Your task to perform on an android device: read, delete, or share a saved page in the chrome app Image 0: 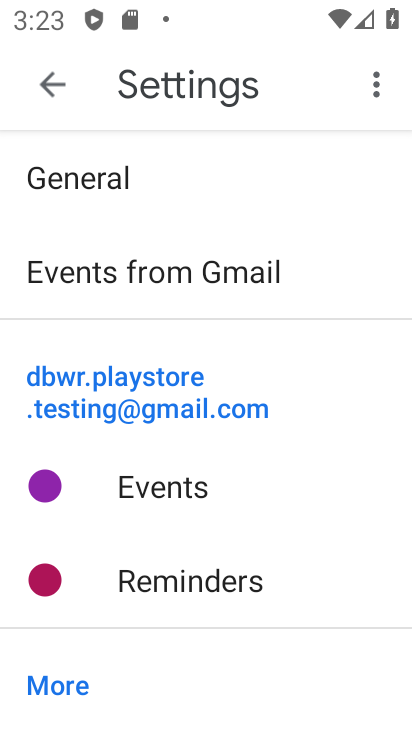
Step 0: press home button
Your task to perform on an android device: read, delete, or share a saved page in the chrome app Image 1: 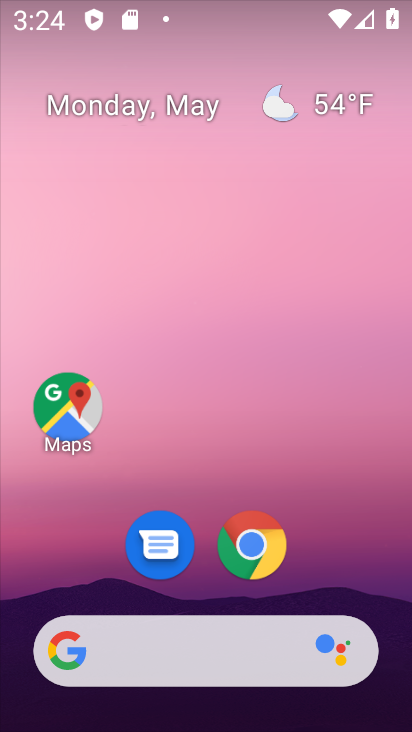
Step 1: click (253, 548)
Your task to perform on an android device: read, delete, or share a saved page in the chrome app Image 2: 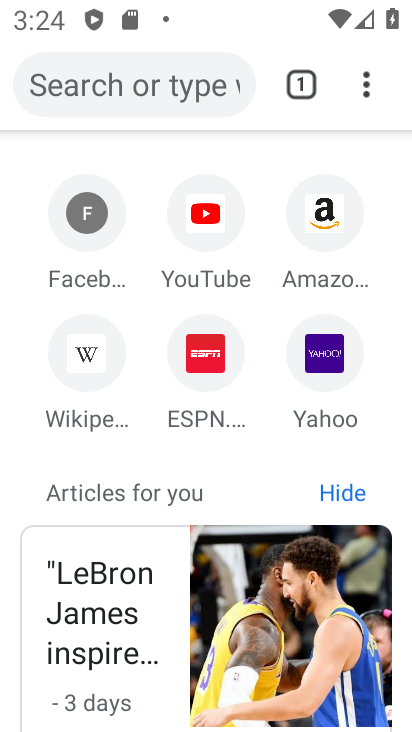
Step 2: click (367, 96)
Your task to perform on an android device: read, delete, or share a saved page in the chrome app Image 3: 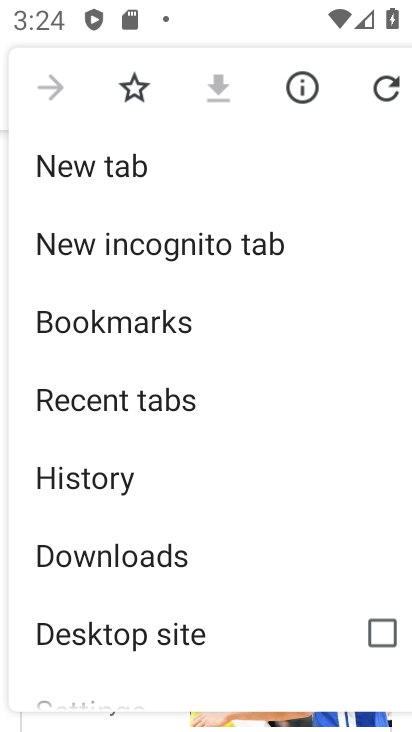
Step 3: click (95, 553)
Your task to perform on an android device: read, delete, or share a saved page in the chrome app Image 4: 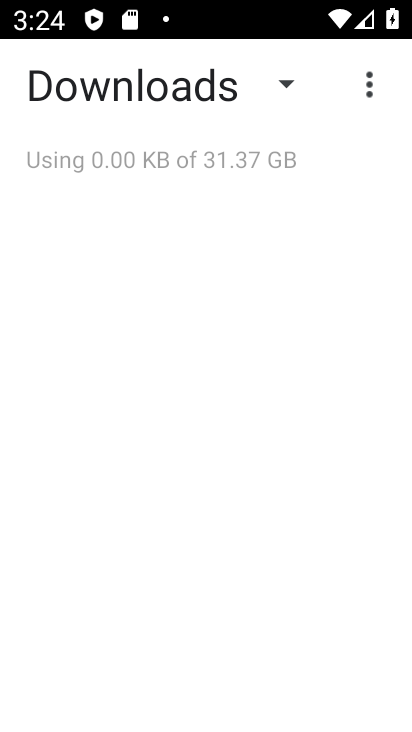
Step 4: click (271, 81)
Your task to perform on an android device: read, delete, or share a saved page in the chrome app Image 5: 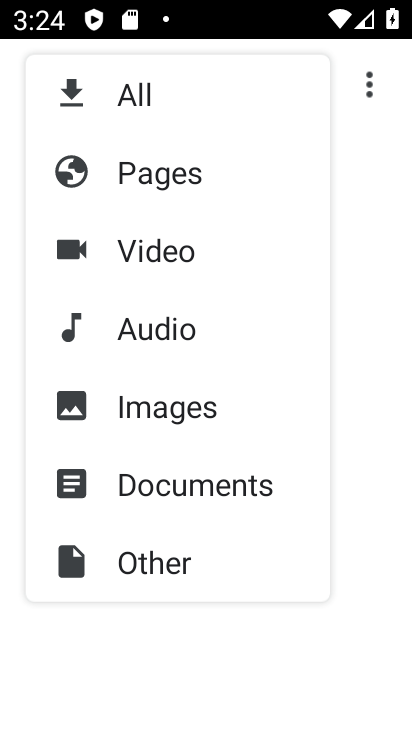
Step 5: click (125, 164)
Your task to perform on an android device: read, delete, or share a saved page in the chrome app Image 6: 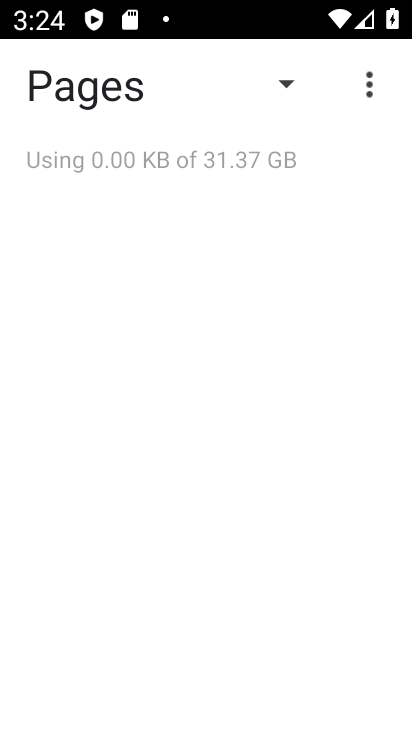
Step 6: task complete